Your task to perform on an android device: Go to notification settings Image 0: 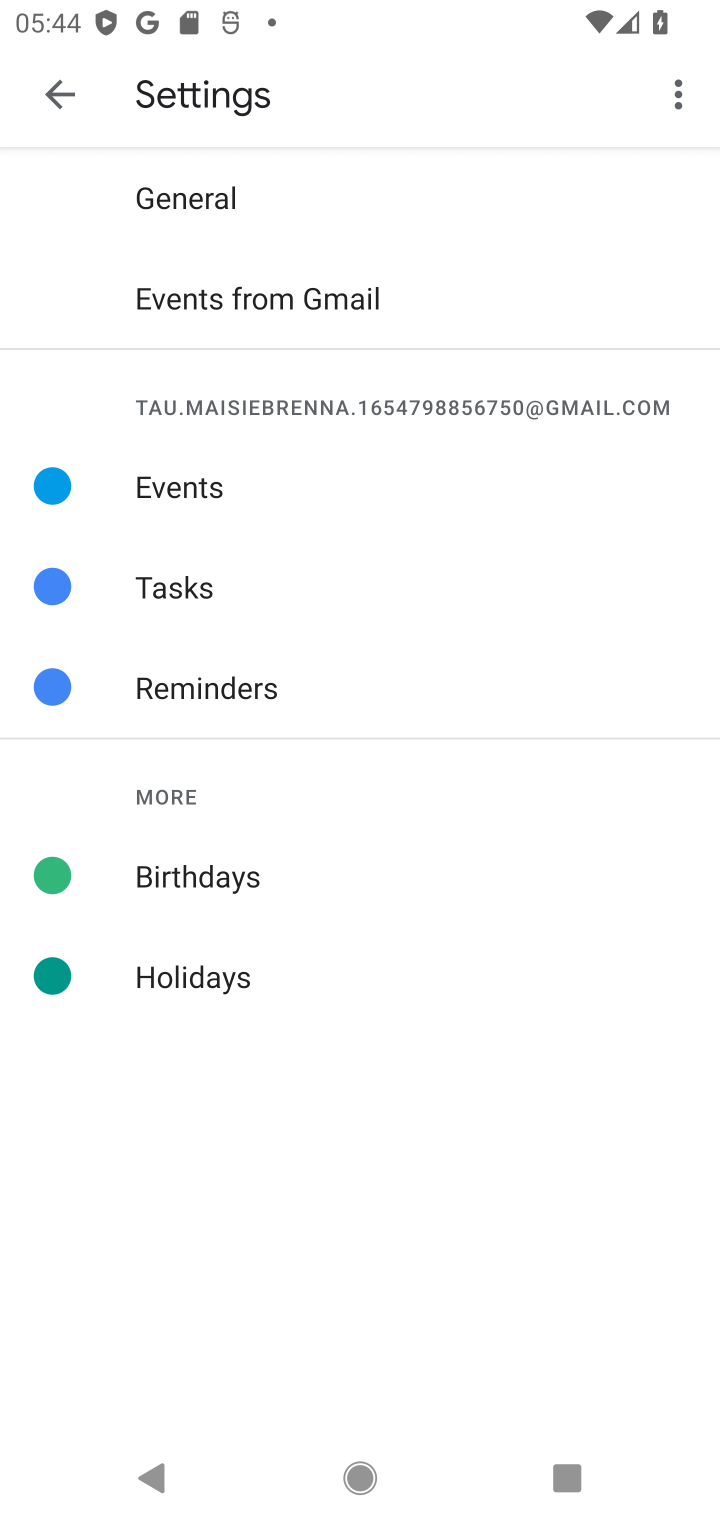
Step 0: press home button
Your task to perform on an android device: Go to notification settings Image 1: 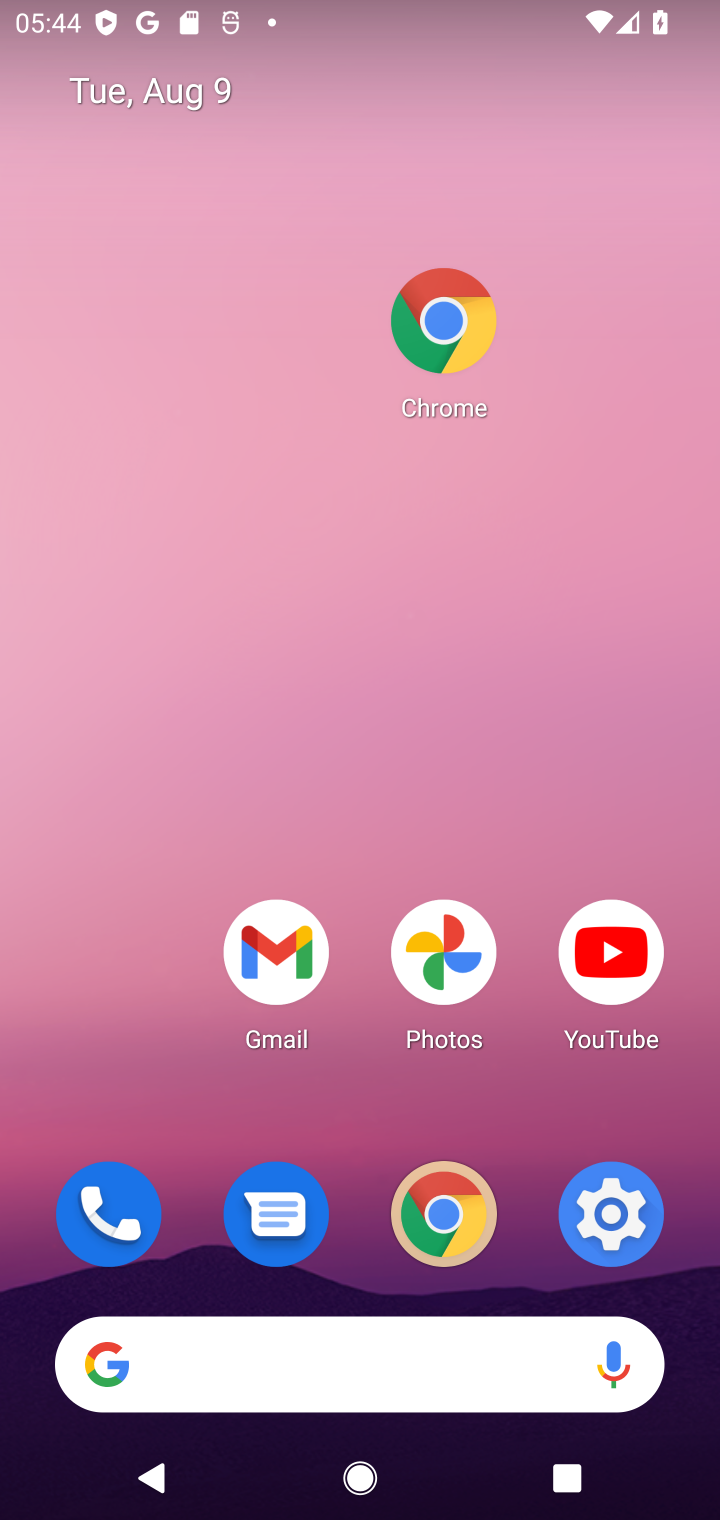
Step 1: drag from (511, 1388) to (493, 419)
Your task to perform on an android device: Go to notification settings Image 2: 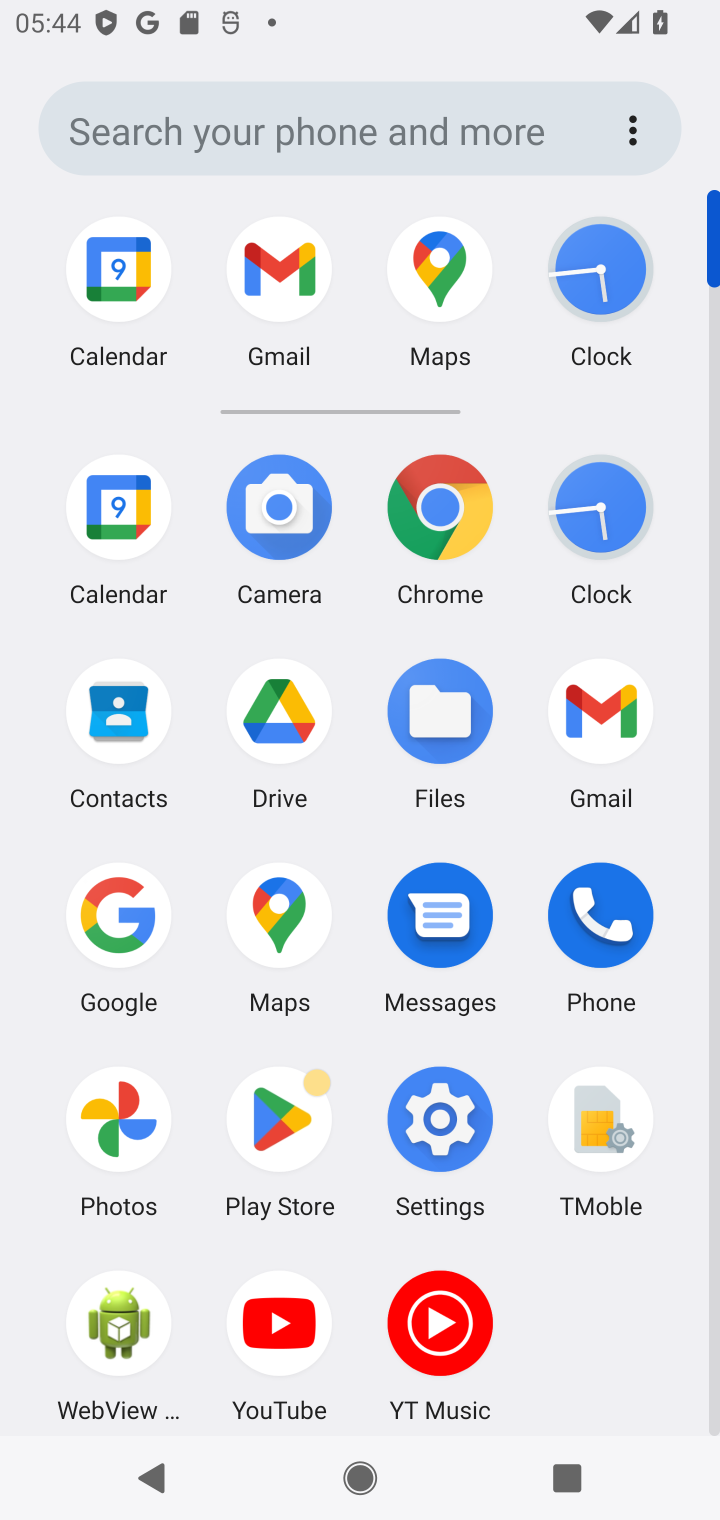
Step 2: click (448, 1130)
Your task to perform on an android device: Go to notification settings Image 3: 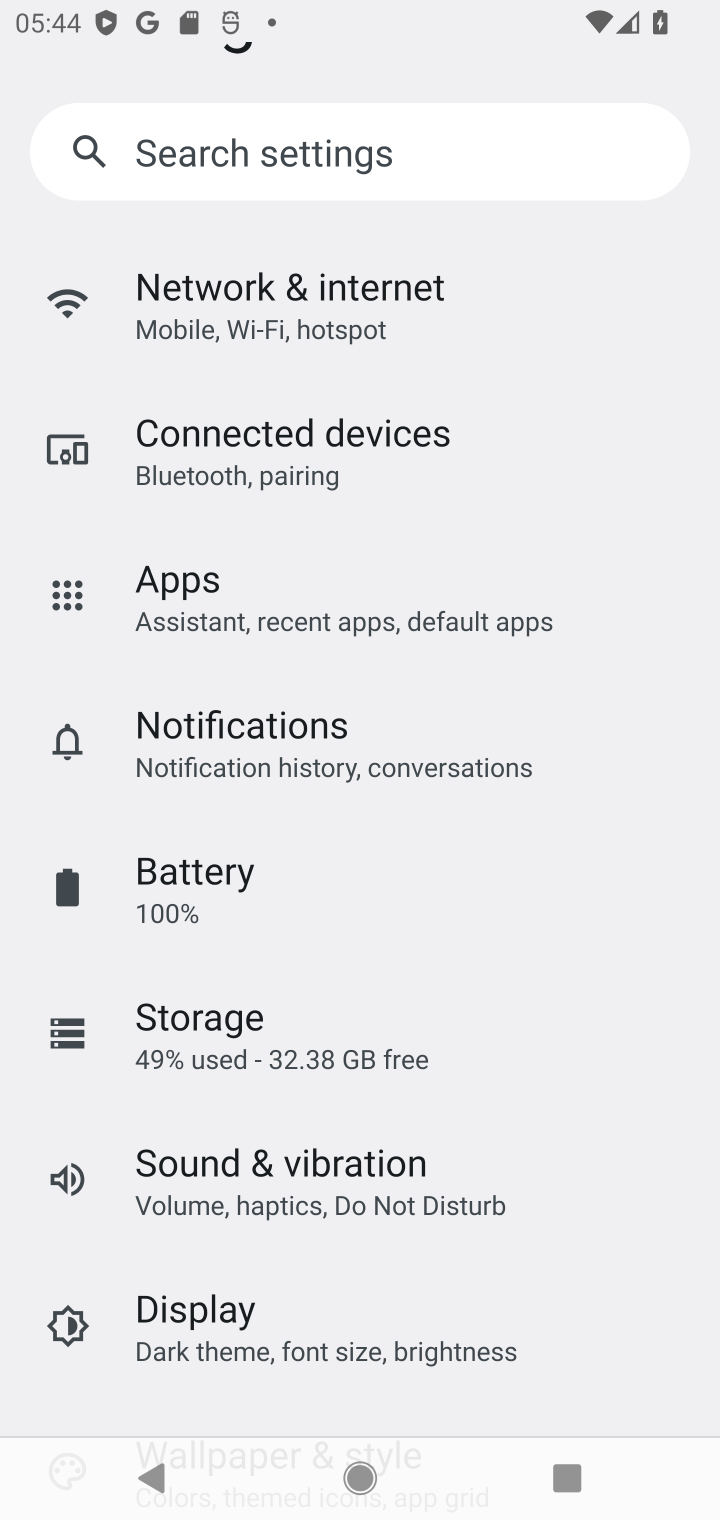
Step 3: click (288, 772)
Your task to perform on an android device: Go to notification settings Image 4: 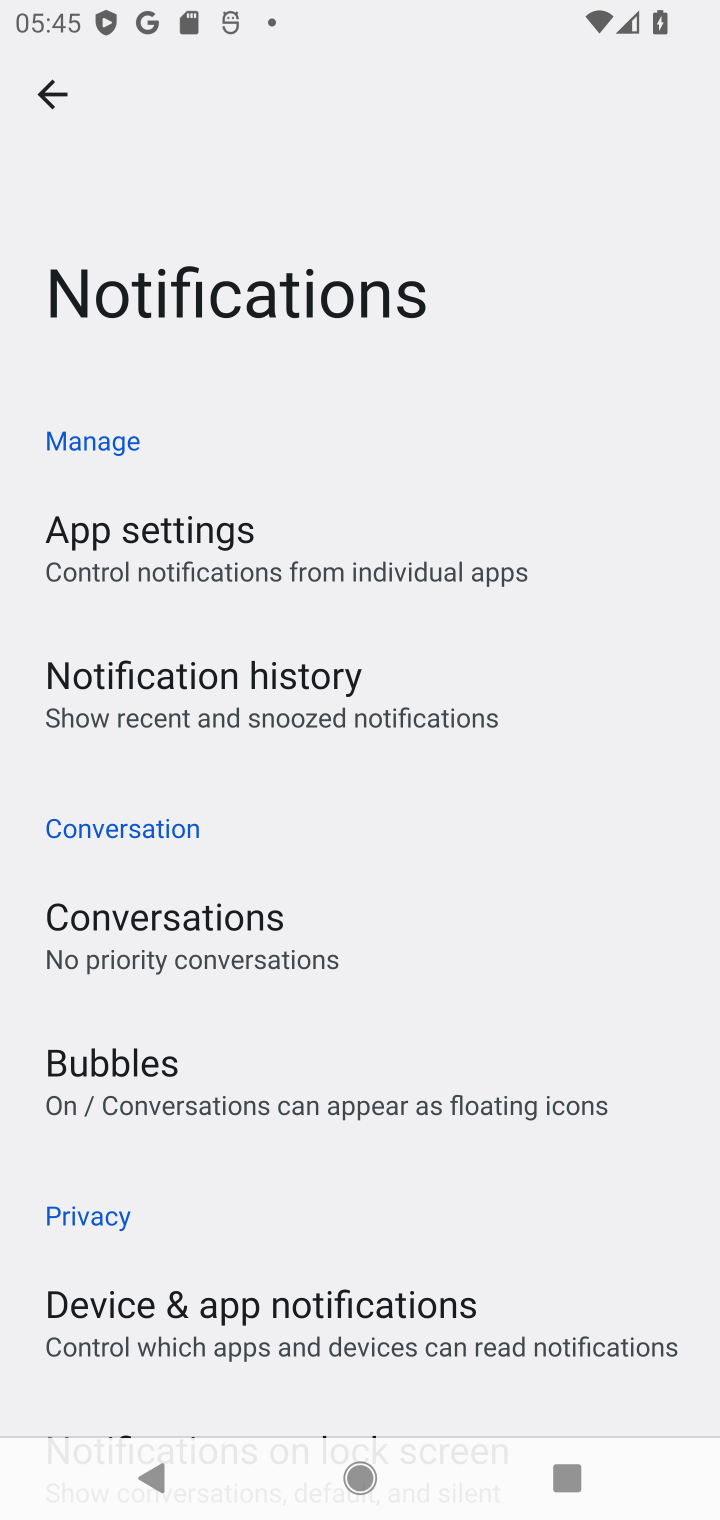
Step 4: drag from (442, 1122) to (416, 882)
Your task to perform on an android device: Go to notification settings Image 5: 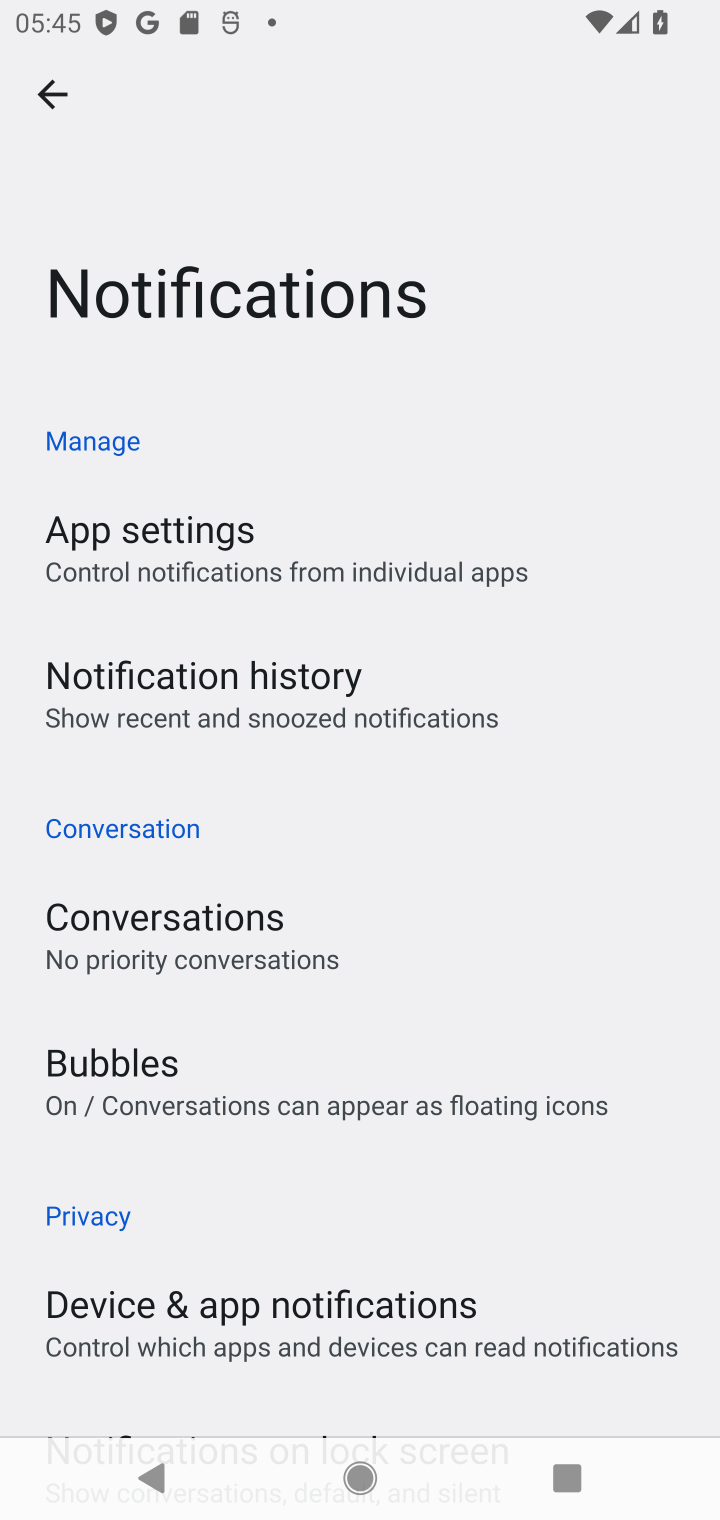
Step 5: drag from (348, 1093) to (425, 684)
Your task to perform on an android device: Go to notification settings Image 6: 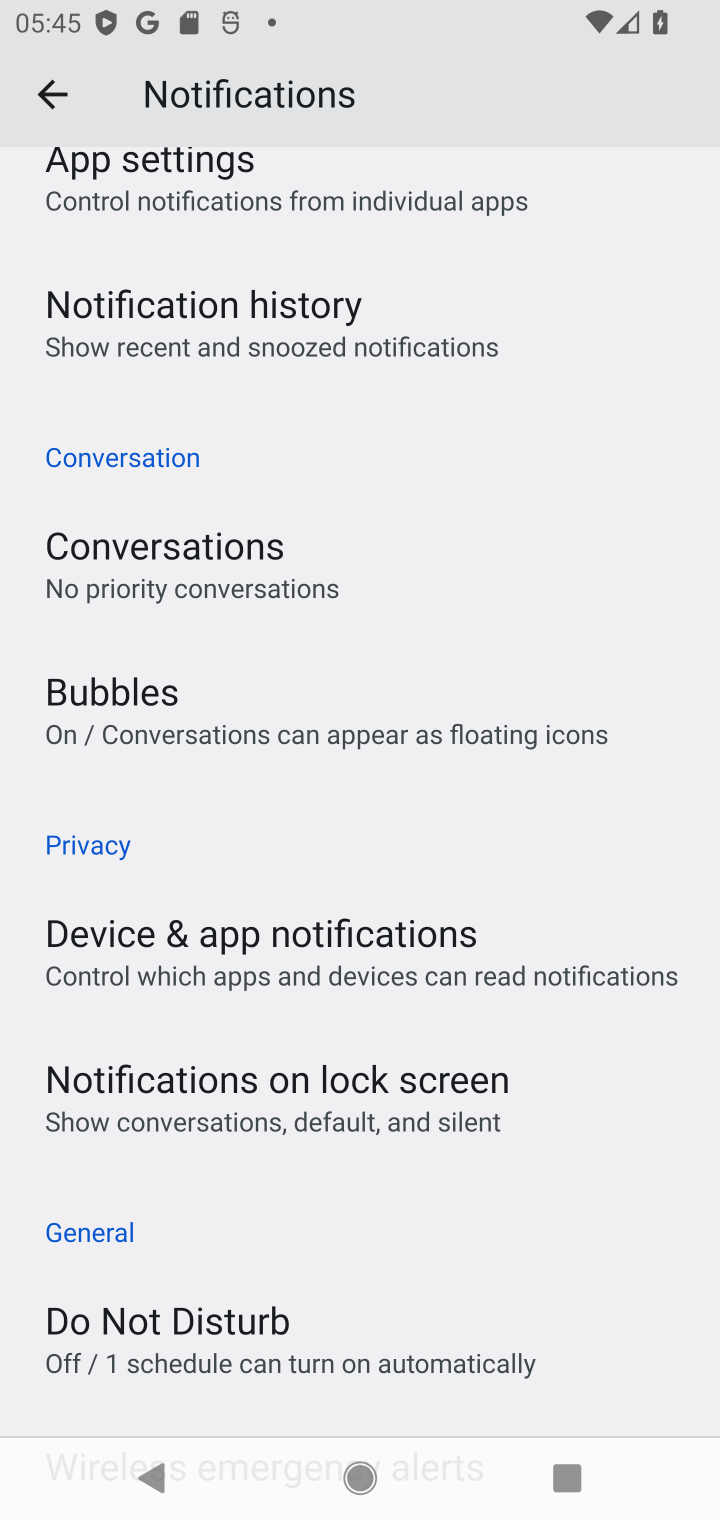
Step 6: drag from (283, 1209) to (302, 1115)
Your task to perform on an android device: Go to notification settings Image 7: 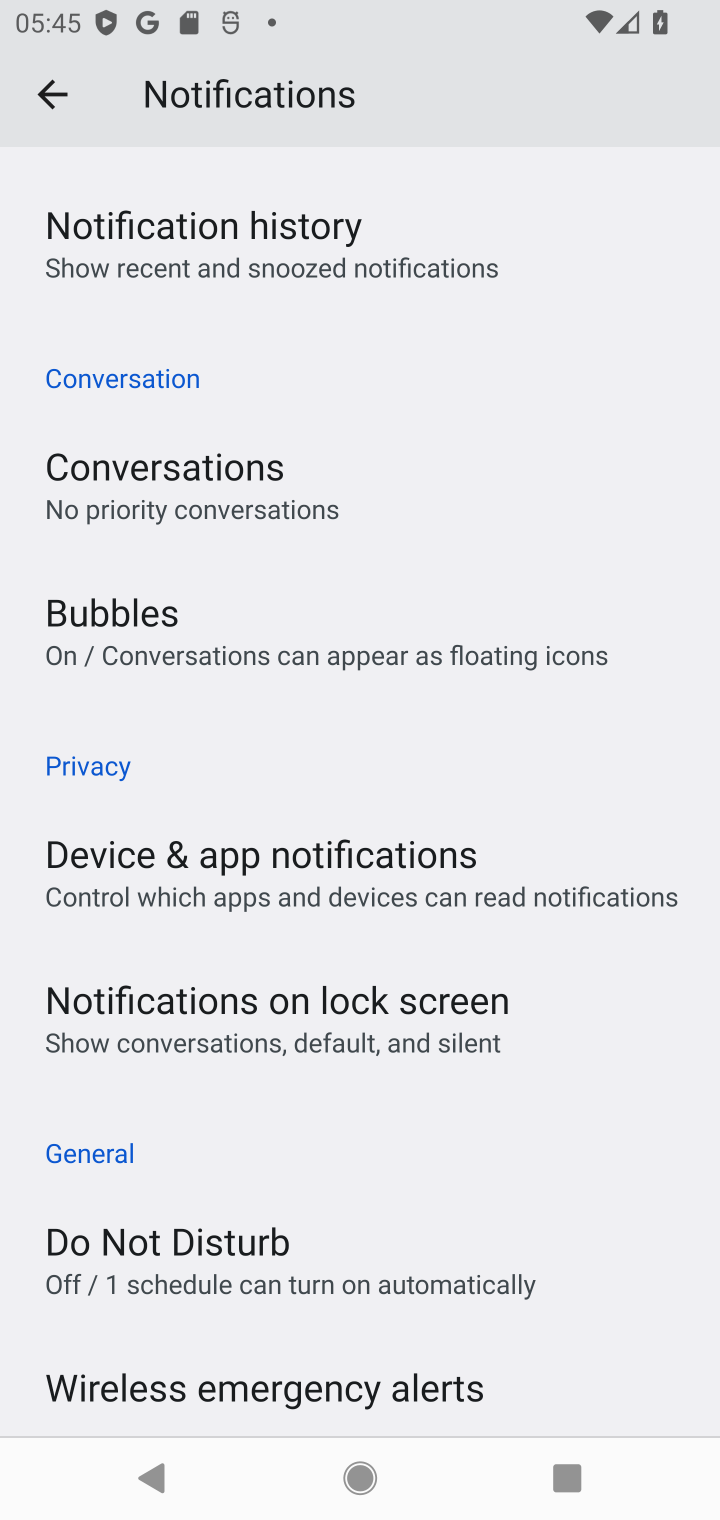
Step 7: click (376, 272)
Your task to perform on an android device: Go to notification settings Image 8: 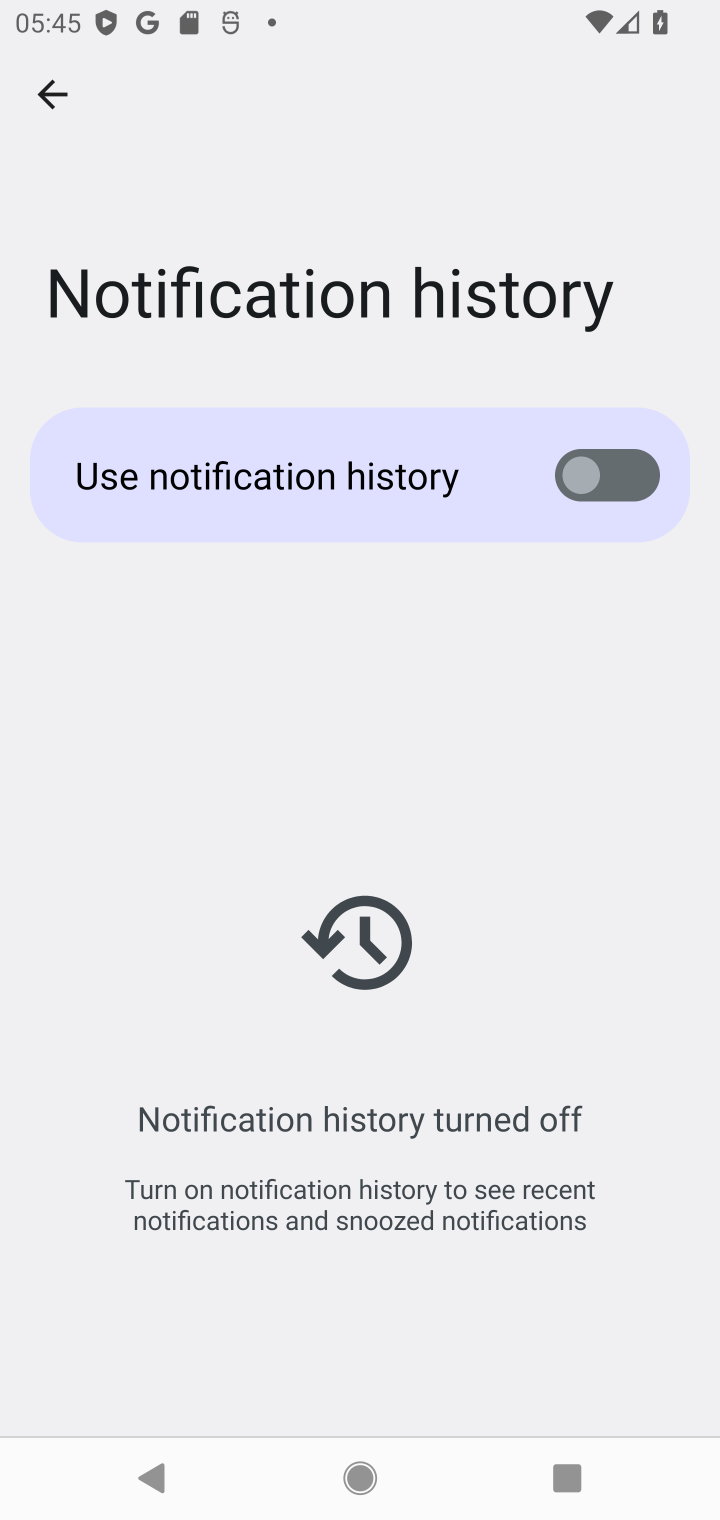
Step 8: task complete